Your task to perform on an android device: Open the map Image 0: 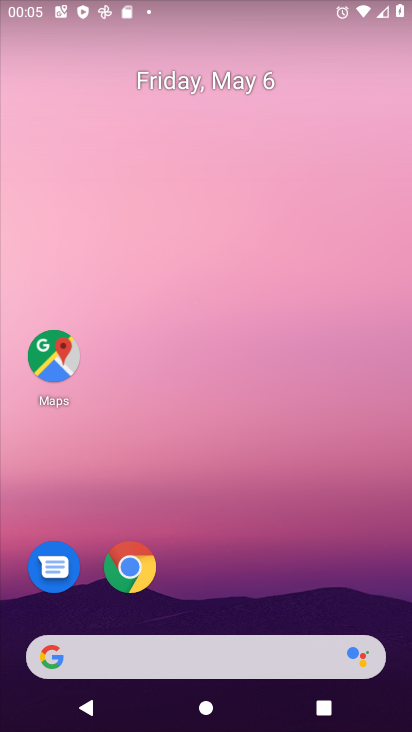
Step 0: click (45, 348)
Your task to perform on an android device: Open the map Image 1: 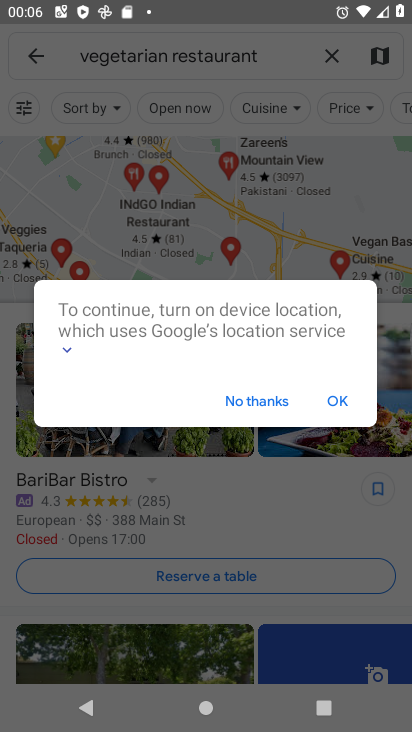
Step 1: click (340, 392)
Your task to perform on an android device: Open the map Image 2: 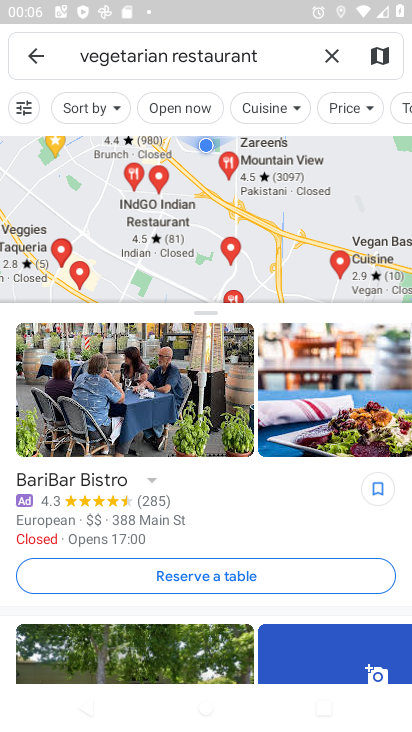
Step 2: task complete